Your task to perform on an android device: Is it going to rain this weekend? Image 0: 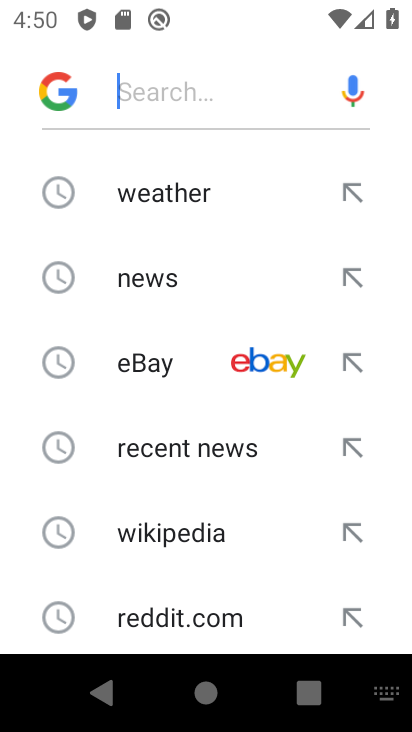
Step 0: press back button
Your task to perform on an android device: Is it going to rain this weekend? Image 1: 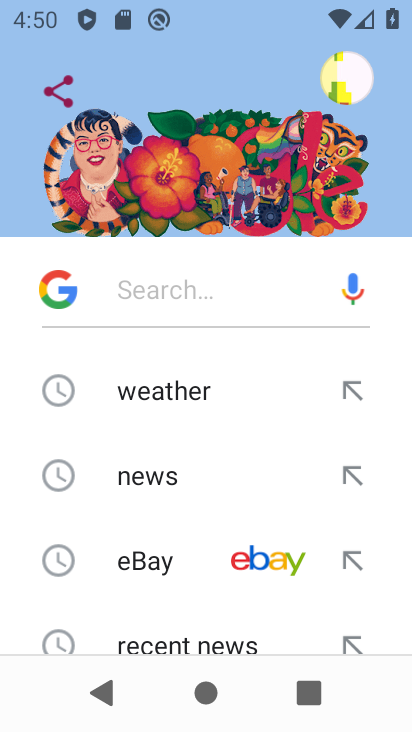
Step 1: press back button
Your task to perform on an android device: Is it going to rain this weekend? Image 2: 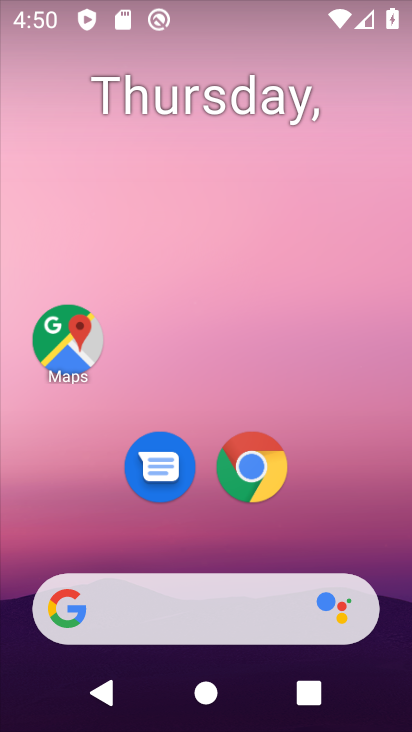
Step 2: click (225, 610)
Your task to perform on an android device: Is it going to rain this weekend? Image 3: 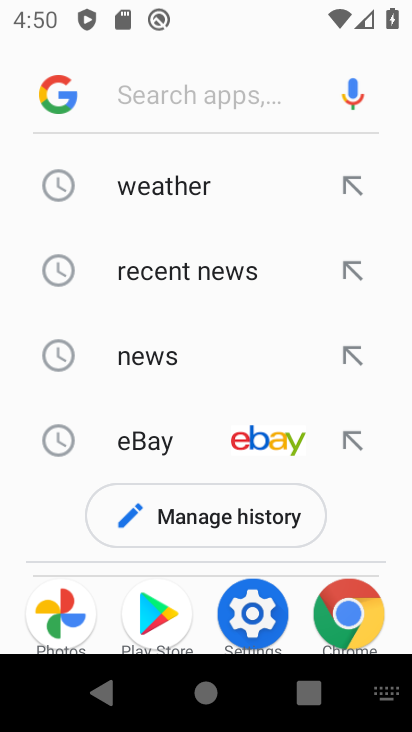
Step 3: type "Is it going to rain this weekend?"
Your task to perform on an android device: Is it going to rain this weekend? Image 4: 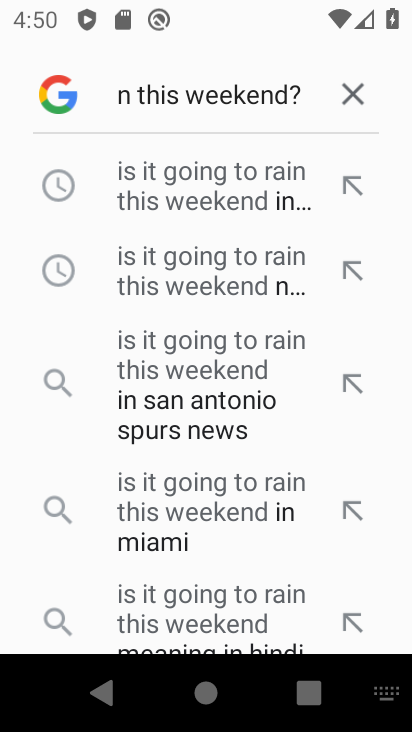
Step 4: click (213, 107)
Your task to perform on an android device: Is it going to rain this weekend? Image 5: 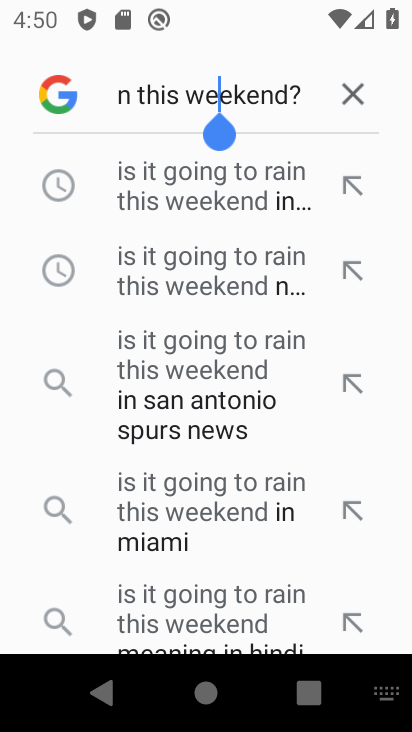
Step 5: click (274, 210)
Your task to perform on an android device: Is it going to rain this weekend? Image 6: 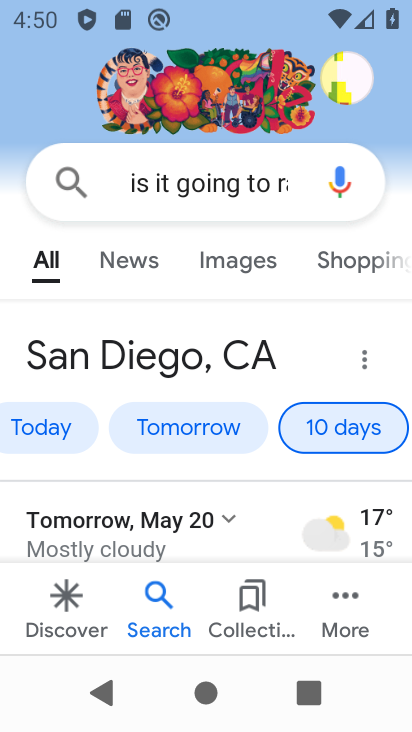
Step 6: task complete